Your task to perform on an android device: Go to CNN.com Image 0: 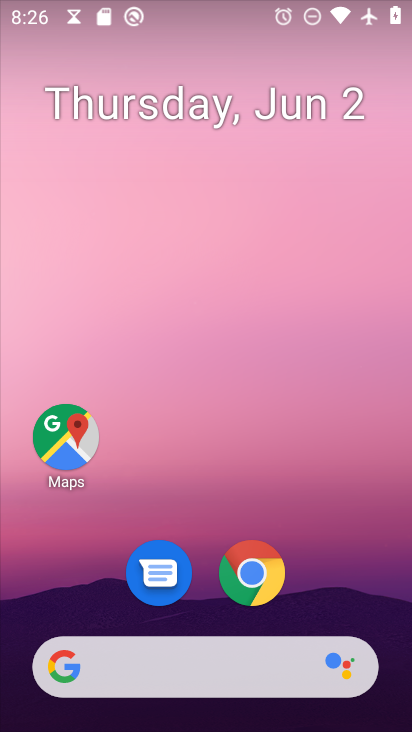
Step 0: press home button
Your task to perform on an android device: Go to CNN.com Image 1: 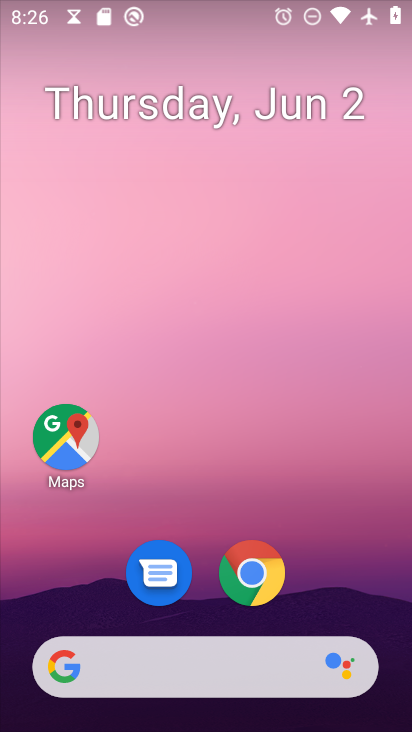
Step 1: click (259, 566)
Your task to perform on an android device: Go to CNN.com Image 2: 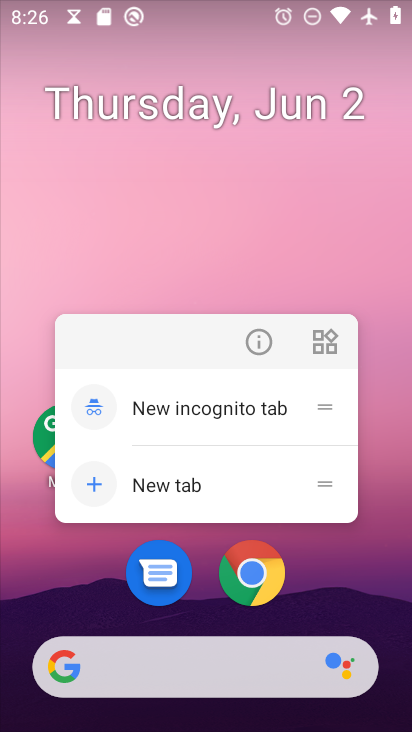
Step 2: click (246, 583)
Your task to perform on an android device: Go to CNN.com Image 3: 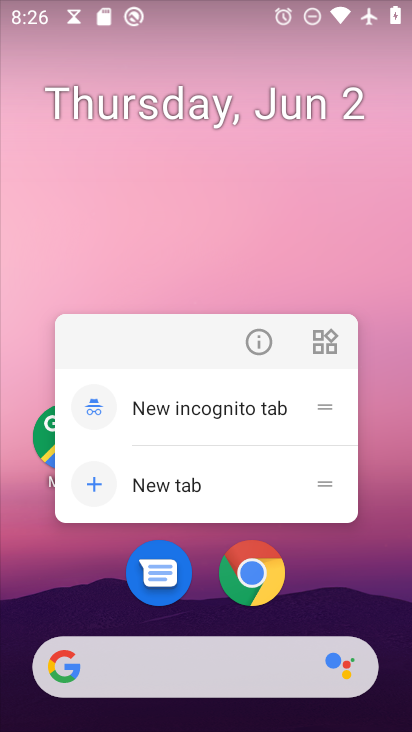
Step 3: click (246, 584)
Your task to perform on an android device: Go to CNN.com Image 4: 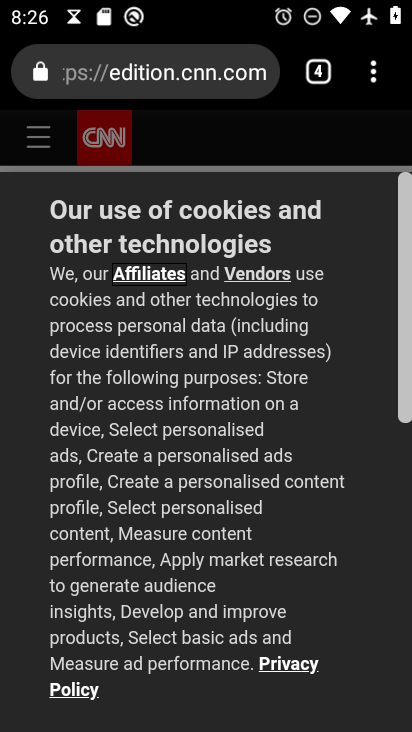
Step 4: drag from (182, 573) to (389, 156)
Your task to perform on an android device: Go to CNN.com Image 5: 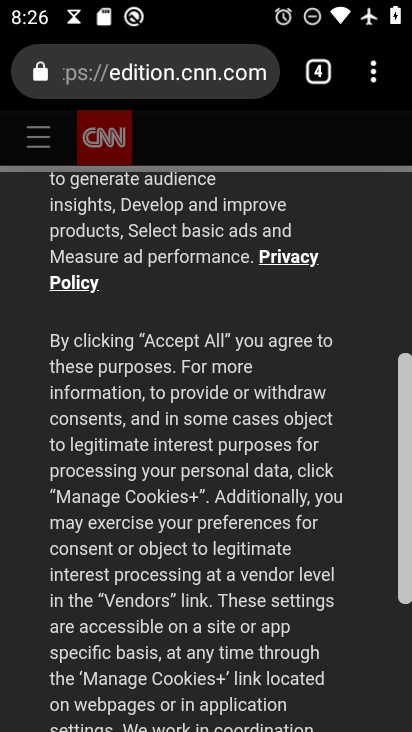
Step 5: drag from (199, 661) to (370, 257)
Your task to perform on an android device: Go to CNN.com Image 6: 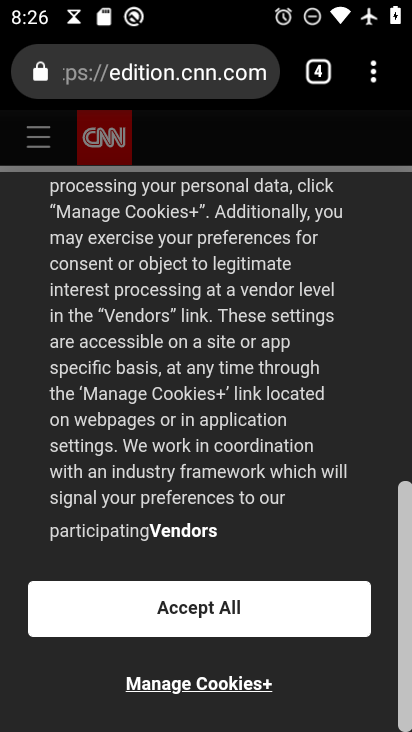
Step 6: click (228, 604)
Your task to perform on an android device: Go to CNN.com Image 7: 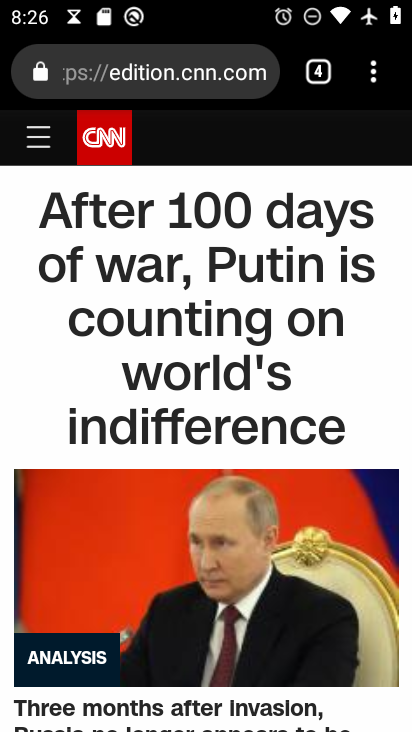
Step 7: task complete